Your task to perform on an android device: delete the emails in spam in the gmail app Image 0: 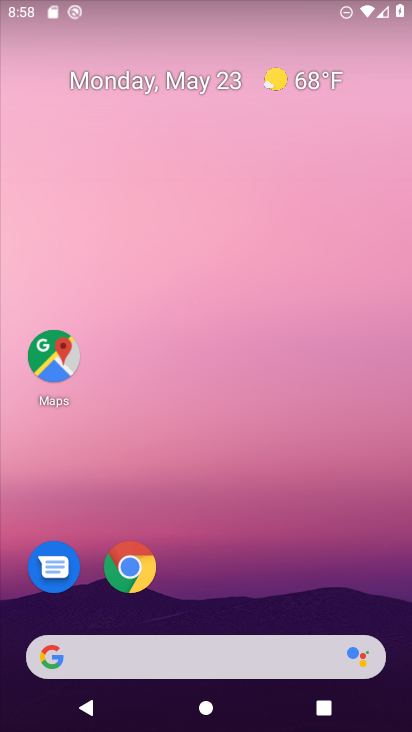
Step 0: drag from (202, 547) to (256, 0)
Your task to perform on an android device: delete the emails in spam in the gmail app Image 1: 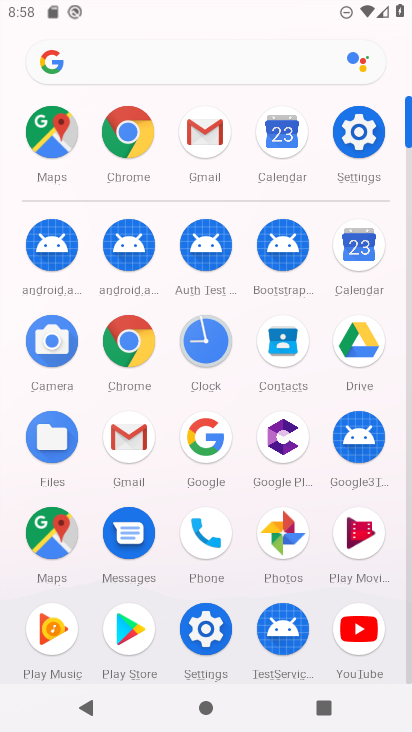
Step 1: click (138, 439)
Your task to perform on an android device: delete the emails in spam in the gmail app Image 2: 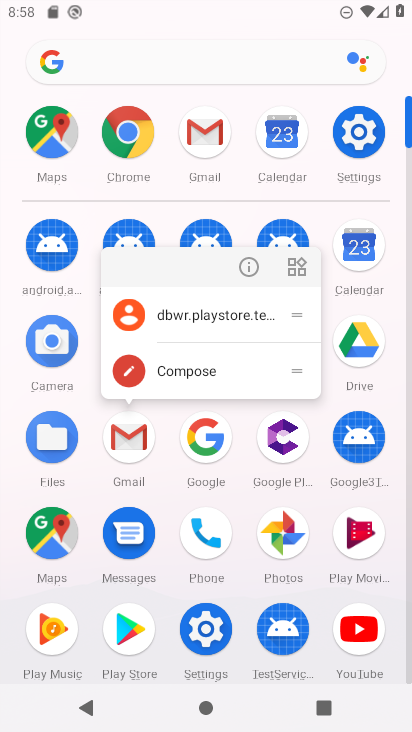
Step 2: click (246, 271)
Your task to perform on an android device: delete the emails in spam in the gmail app Image 3: 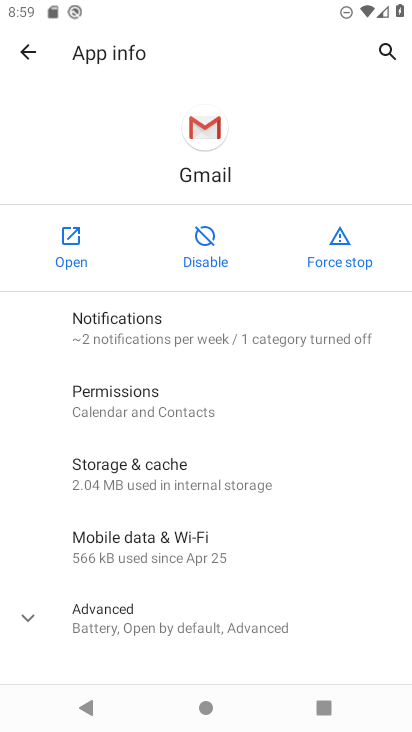
Step 3: click (74, 244)
Your task to perform on an android device: delete the emails in spam in the gmail app Image 4: 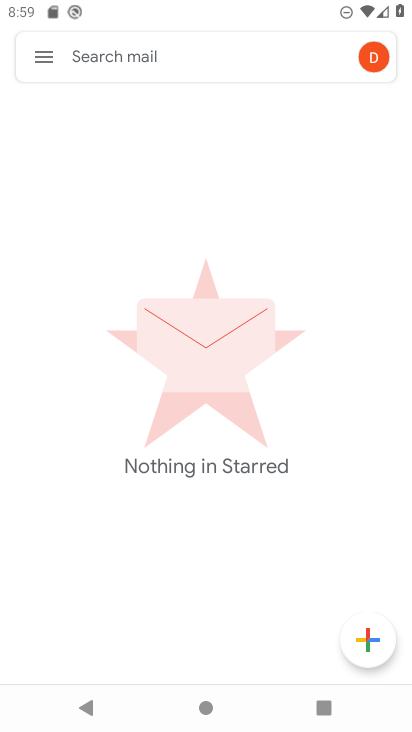
Step 4: click (36, 41)
Your task to perform on an android device: delete the emails in spam in the gmail app Image 5: 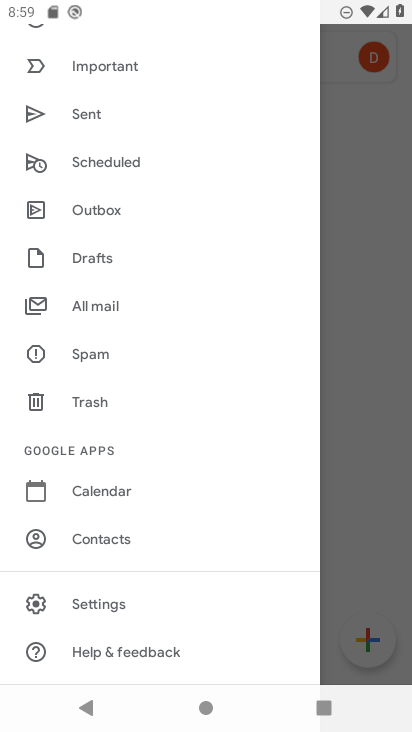
Step 5: drag from (131, 563) to (150, 112)
Your task to perform on an android device: delete the emails in spam in the gmail app Image 6: 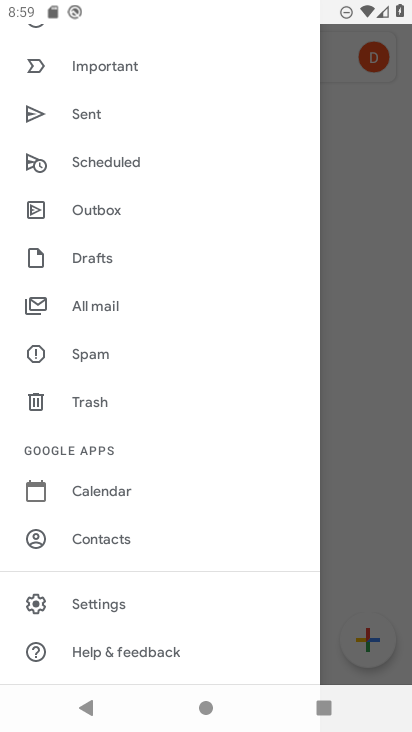
Step 6: drag from (108, 132) to (186, 589)
Your task to perform on an android device: delete the emails in spam in the gmail app Image 7: 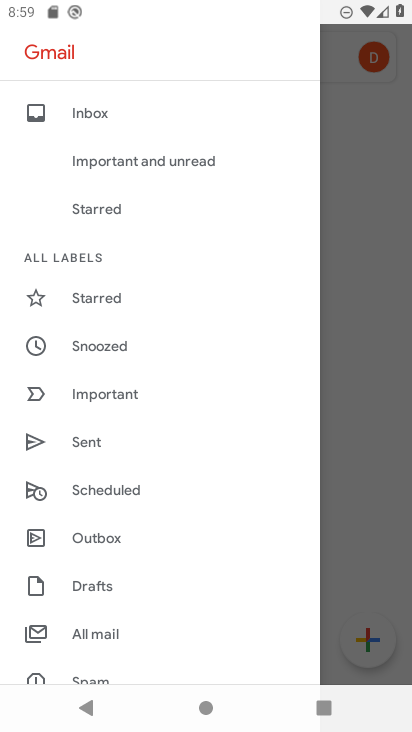
Step 7: drag from (118, 625) to (180, 192)
Your task to perform on an android device: delete the emails in spam in the gmail app Image 8: 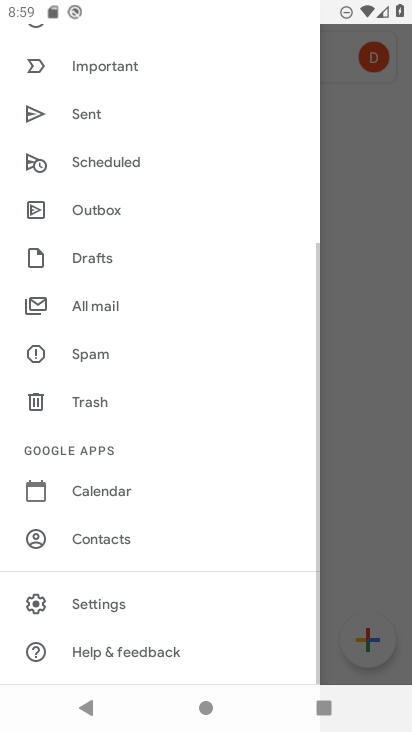
Step 8: click (94, 362)
Your task to perform on an android device: delete the emails in spam in the gmail app Image 9: 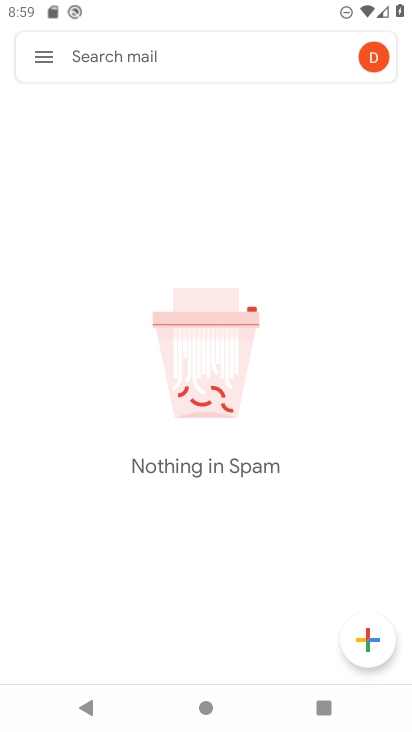
Step 9: task complete